Your task to perform on an android device: When is my next meeting? Image 0: 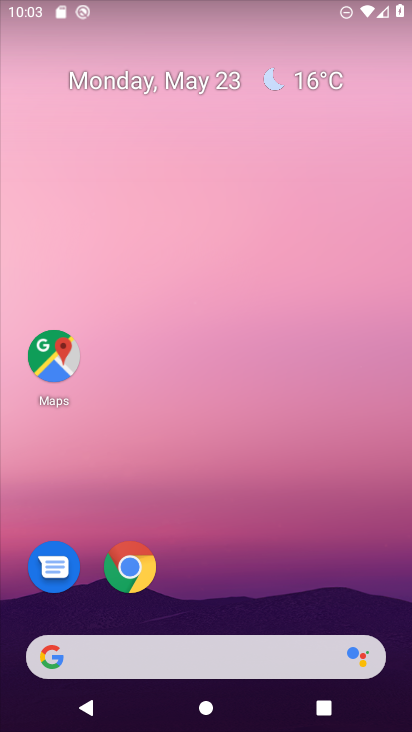
Step 0: drag from (332, 247) to (371, 5)
Your task to perform on an android device: When is my next meeting? Image 1: 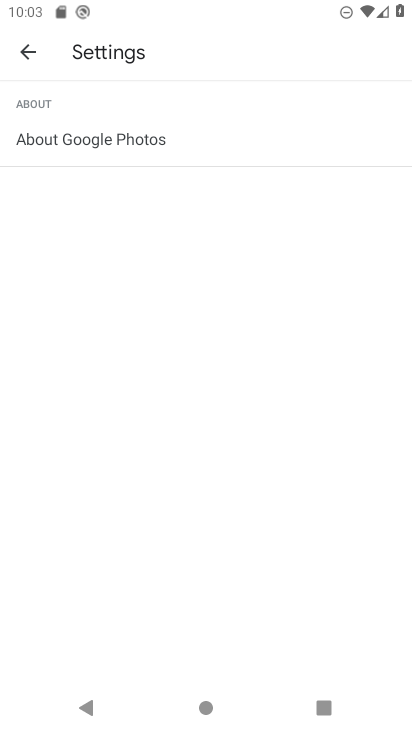
Step 1: drag from (189, 622) to (237, 97)
Your task to perform on an android device: When is my next meeting? Image 2: 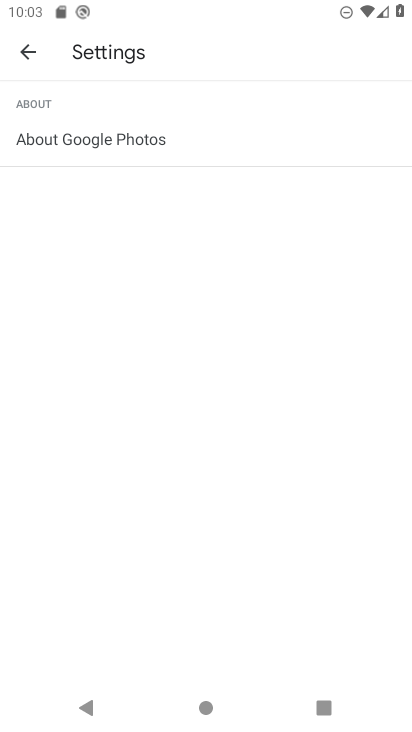
Step 2: press back button
Your task to perform on an android device: When is my next meeting? Image 3: 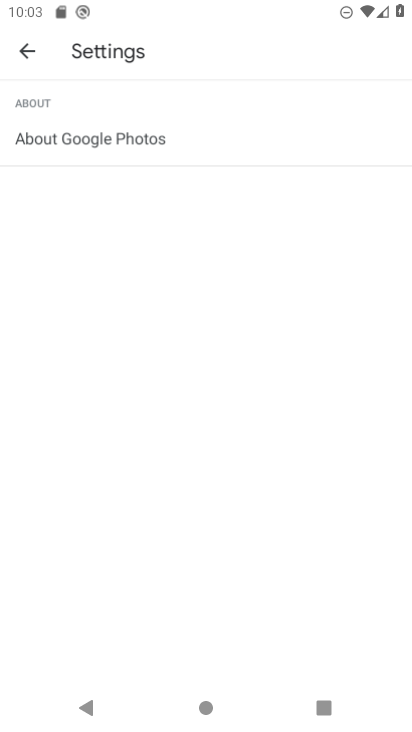
Step 3: press home button
Your task to perform on an android device: When is my next meeting? Image 4: 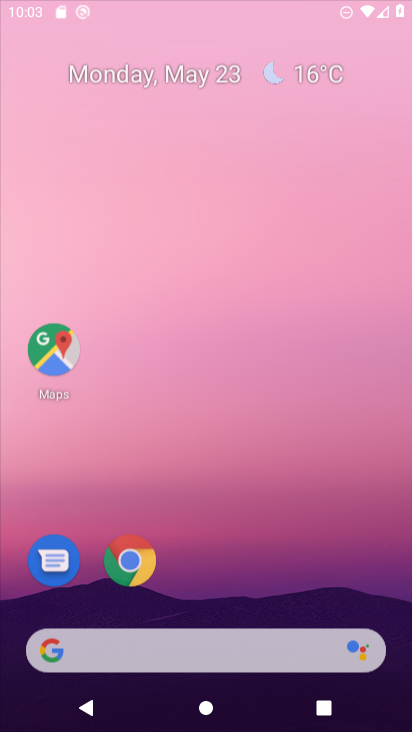
Step 4: drag from (184, 563) to (211, 132)
Your task to perform on an android device: When is my next meeting? Image 5: 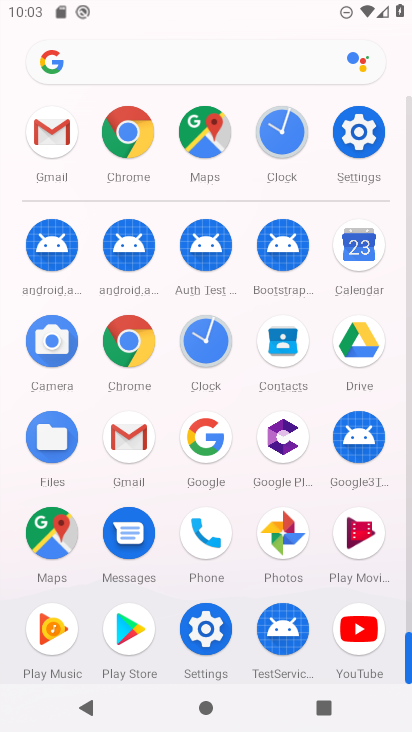
Step 5: click (351, 238)
Your task to perform on an android device: When is my next meeting? Image 6: 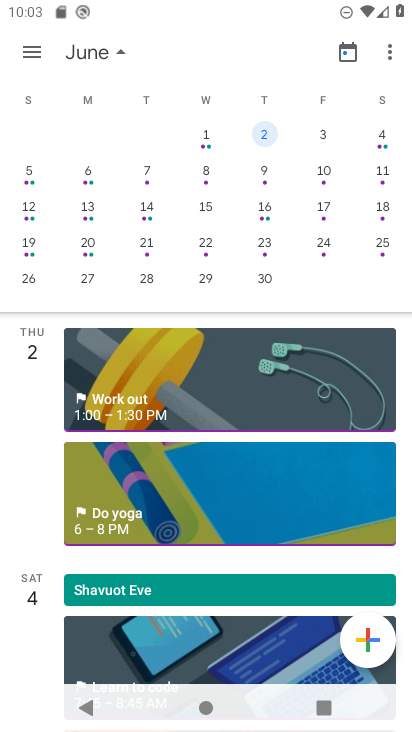
Step 6: drag from (204, 589) to (303, 141)
Your task to perform on an android device: When is my next meeting? Image 7: 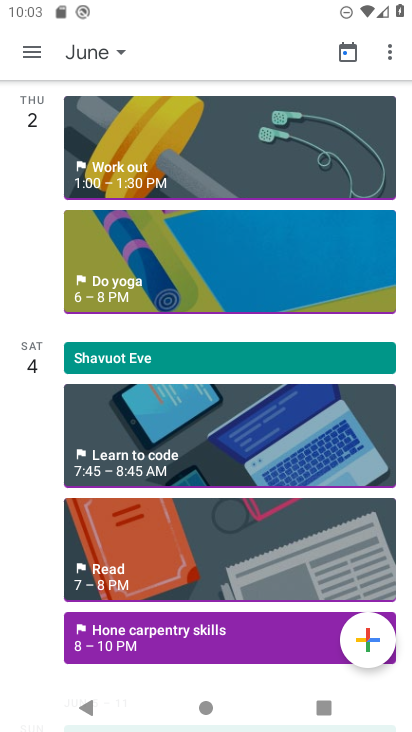
Step 7: drag from (235, 141) to (246, 426)
Your task to perform on an android device: When is my next meeting? Image 8: 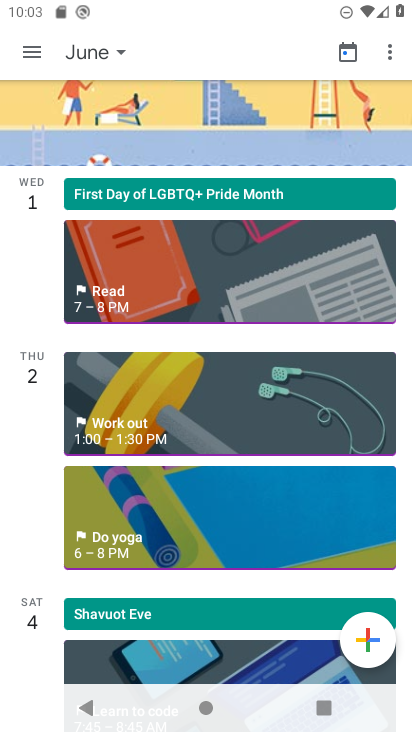
Step 8: drag from (243, 529) to (235, 168)
Your task to perform on an android device: When is my next meeting? Image 9: 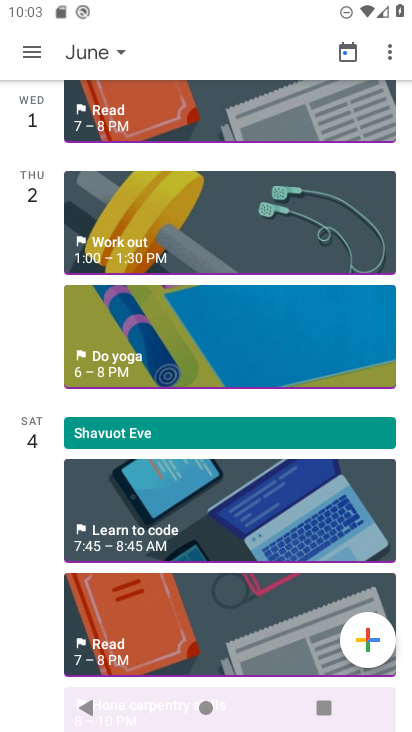
Step 9: click (90, 49)
Your task to perform on an android device: When is my next meeting? Image 10: 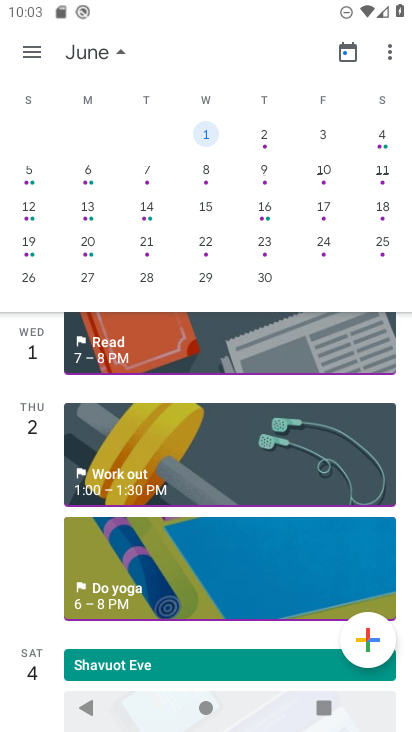
Step 10: click (91, 49)
Your task to perform on an android device: When is my next meeting? Image 11: 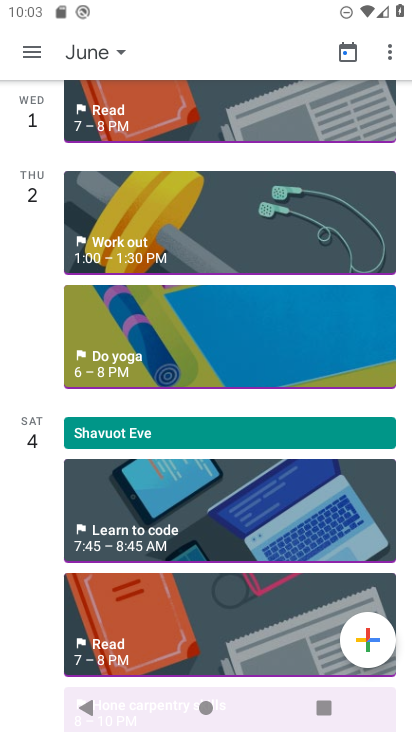
Step 11: click (111, 46)
Your task to perform on an android device: When is my next meeting? Image 12: 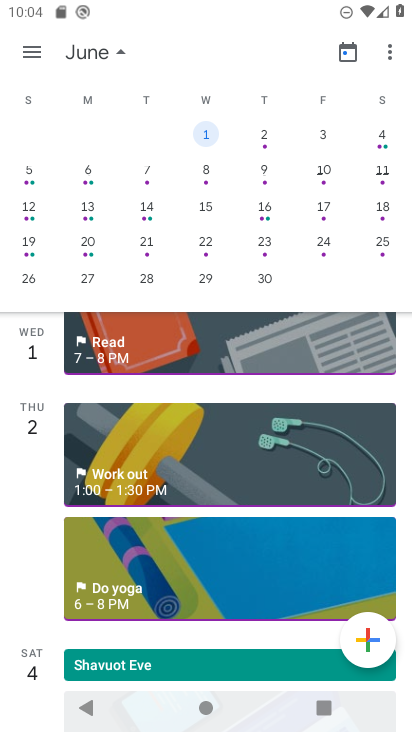
Step 12: drag from (60, 231) to (381, 223)
Your task to perform on an android device: When is my next meeting? Image 13: 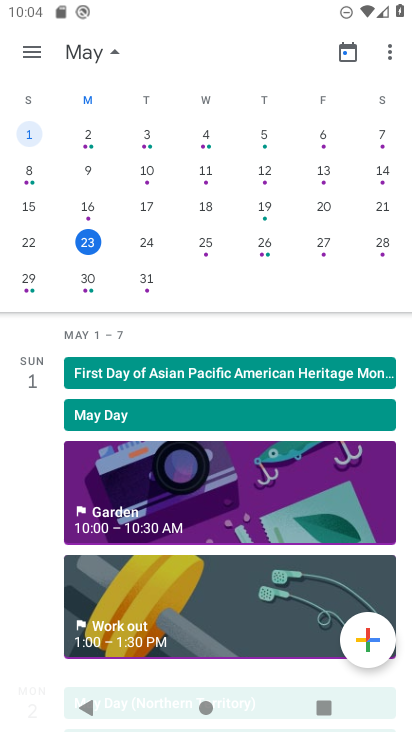
Step 13: click (96, 240)
Your task to perform on an android device: When is my next meeting? Image 14: 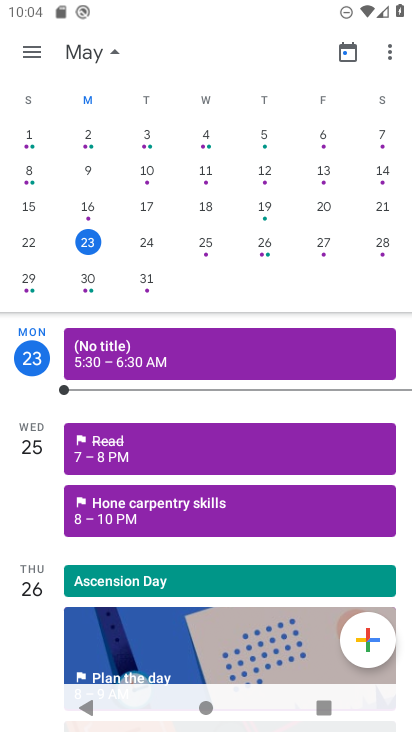
Step 14: task complete